Your task to perform on an android device: Turn on the flashlight Image 0: 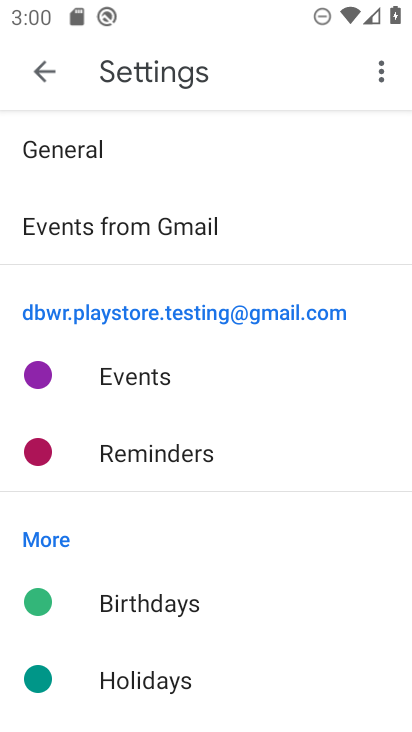
Step 0: press home button
Your task to perform on an android device: Turn on the flashlight Image 1: 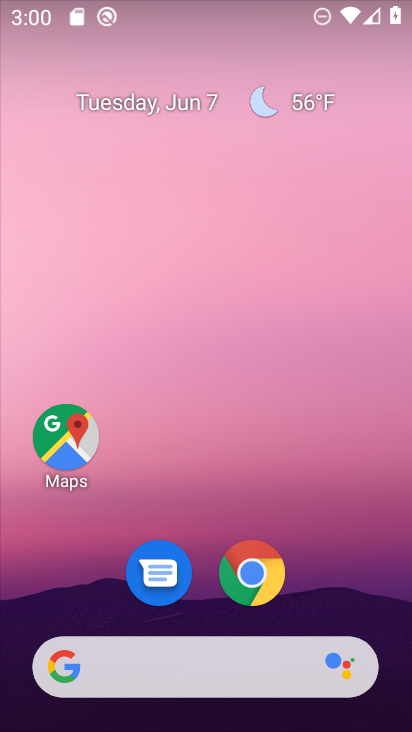
Step 1: drag from (335, 598) to (354, 0)
Your task to perform on an android device: Turn on the flashlight Image 2: 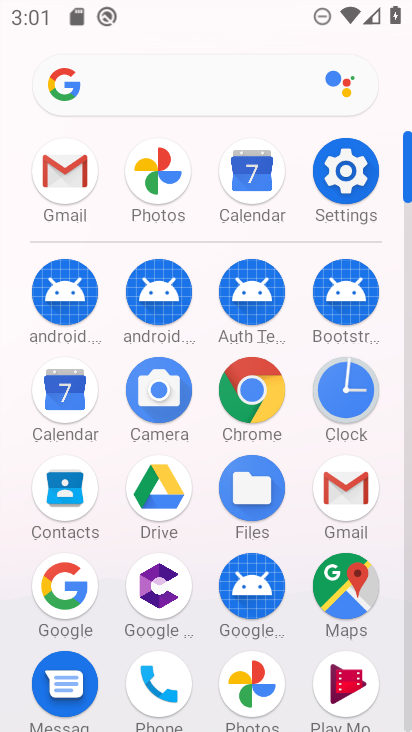
Step 2: click (345, 157)
Your task to perform on an android device: Turn on the flashlight Image 3: 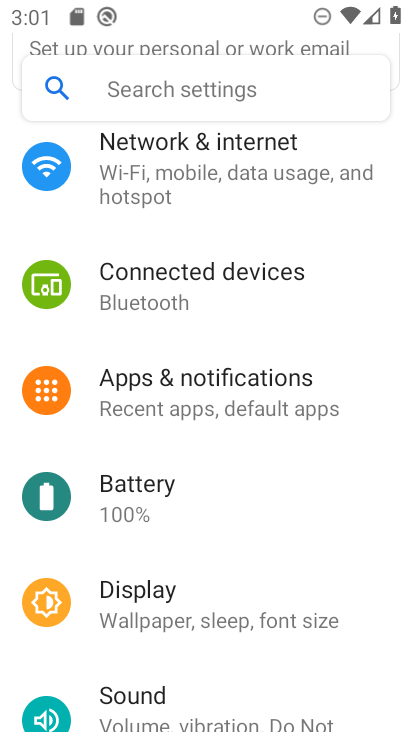
Step 3: task complete